Your task to perform on an android device: Is it going to rain tomorrow? Image 0: 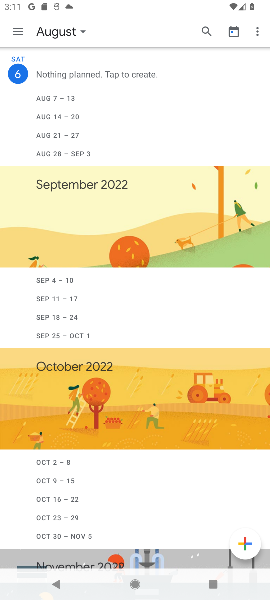
Step 0: press back button
Your task to perform on an android device: Is it going to rain tomorrow? Image 1: 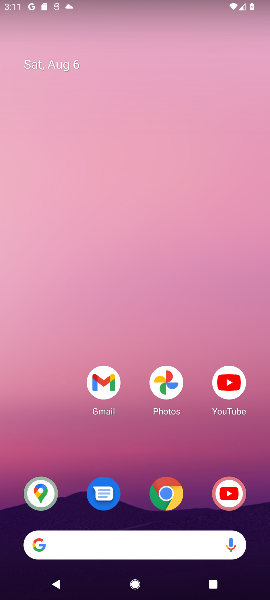
Step 1: drag from (157, 341) to (89, 124)
Your task to perform on an android device: Is it going to rain tomorrow? Image 2: 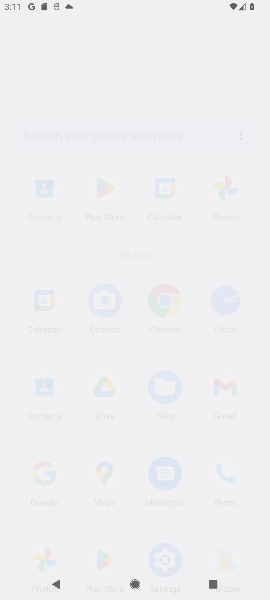
Step 2: drag from (114, 410) to (114, 122)
Your task to perform on an android device: Is it going to rain tomorrow? Image 3: 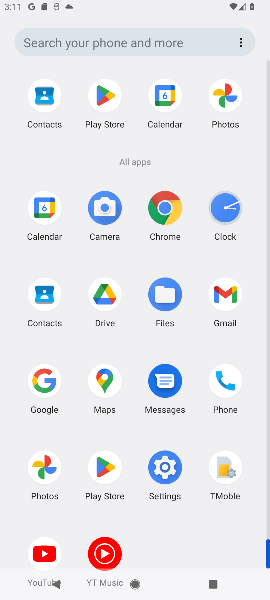
Step 3: click (168, 208)
Your task to perform on an android device: Is it going to rain tomorrow? Image 4: 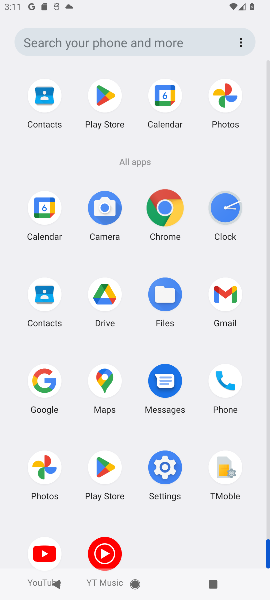
Step 4: click (167, 211)
Your task to perform on an android device: Is it going to rain tomorrow? Image 5: 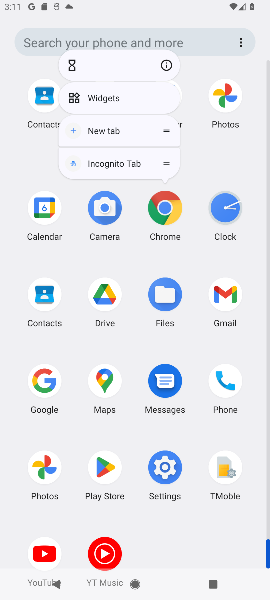
Step 5: click (168, 211)
Your task to perform on an android device: Is it going to rain tomorrow? Image 6: 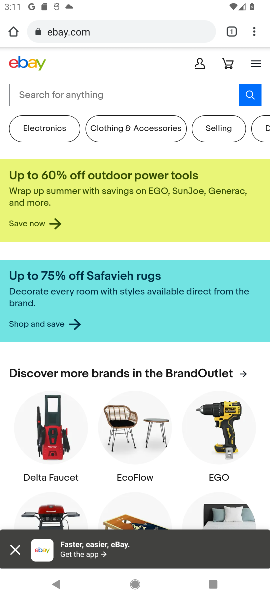
Step 6: click (256, 33)
Your task to perform on an android device: Is it going to rain tomorrow? Image 7: 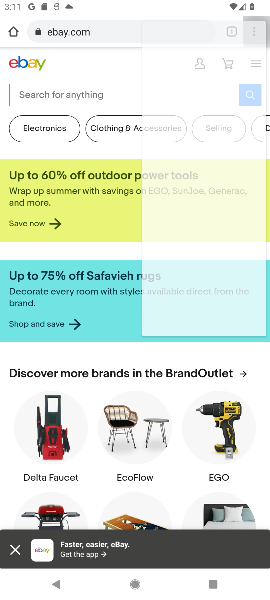
Step 7: click (257, 33)
Your task to perform on an android device: Is it going to rain tomorrow? Image 8: 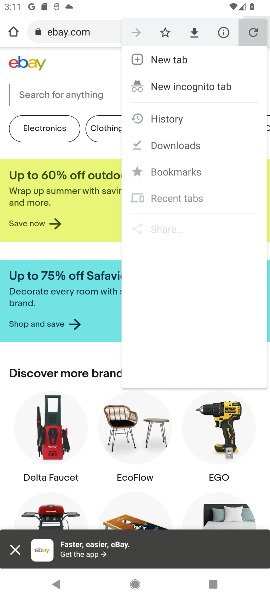
Step 8: click (257, 33)
Your task to perform on an android device: Is it going to rain tomorrow? Image 9: 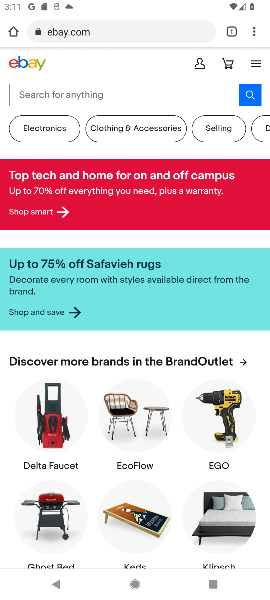
Step 9: click (254, 30)
Your task to perform on an android device: Is it going to rain tomorrow? Image 10: 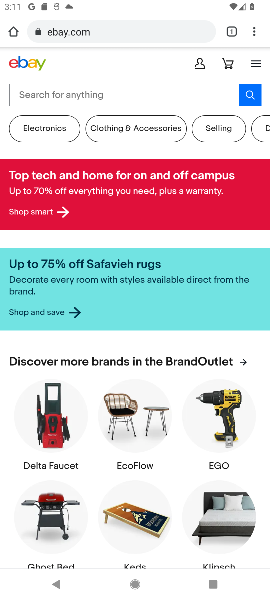
Step 10: click (251, 35)
Your task to perform on an android device: Is it going to rain tomorrow? Image 11: 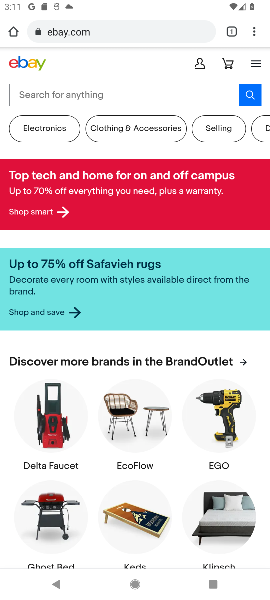
Step 11: click (251, 35)
Your task to perform on an android device: Is it going to rain tomorrow? Image 12: 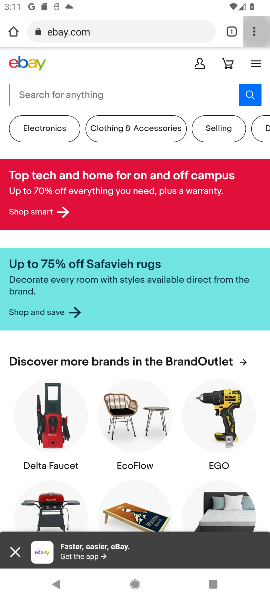
Step 12: click (251, 35)
Your task to perform on an android device: Is it going to rain tomorrow? Image 13: 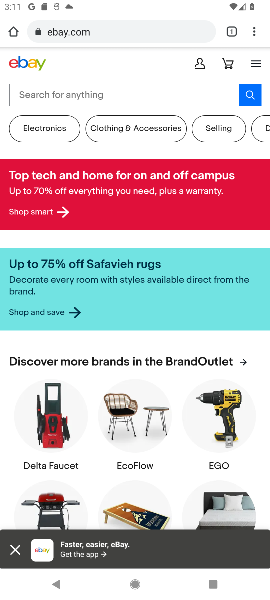
Step 13: click (245, 28)
Your task to perform on an android device: Is it going to rain tomorrow? Image 14: 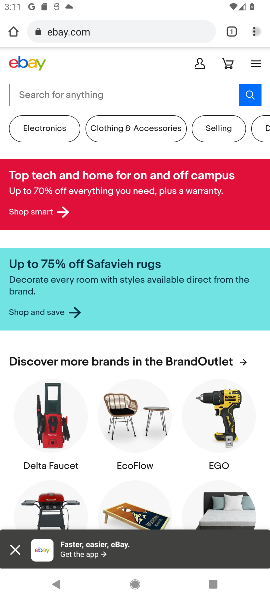
Step 14: drag from (248, 32) to (141, 122)
Your task to perform on an android device: Is it going to rain tomorrow? Image 15: 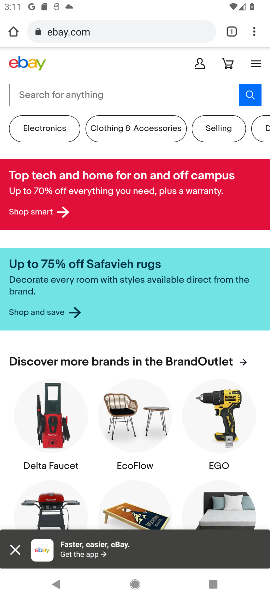
Step 15: click (252, 28)
Your task to perform on an android device: Is it going to rain tomorrow? Image 16: 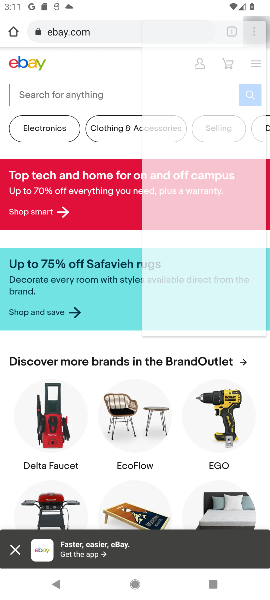
Step 16: click (255, 32)
Your task to perform on an android device: Is it going to rain tomorrow? Image 17: 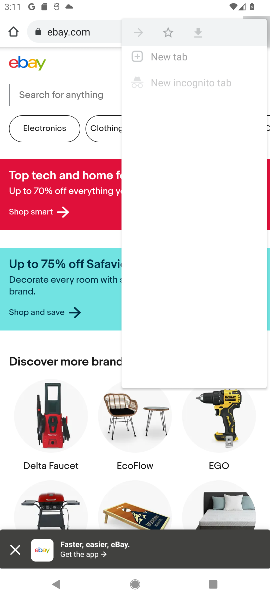
Step 17: click (255, 32)
Your task to perform on an android device: Is it going to rain tomorrow? Image 18: 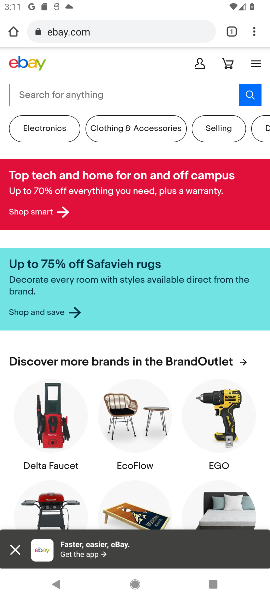
Step 18: drag from (179, 63) to (122, 68)
Your task to perform on an android device: Is it going to rain tomorrow? Image 19: 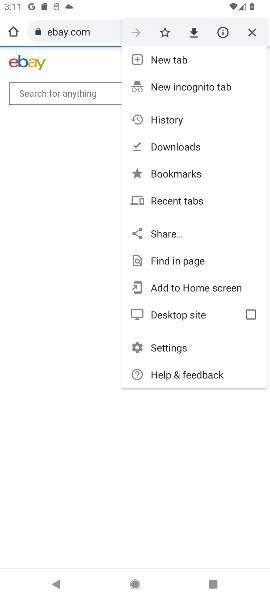
Step 19: click (155, 59)
Your task to perform on an android device: Is it going to rain tomorrow? Image 20: 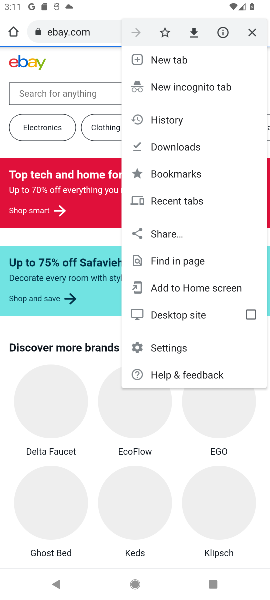
Step 20: click (157, 60)
Your task to perform on an android device: Is it going to rain tomorrow? Image 21: 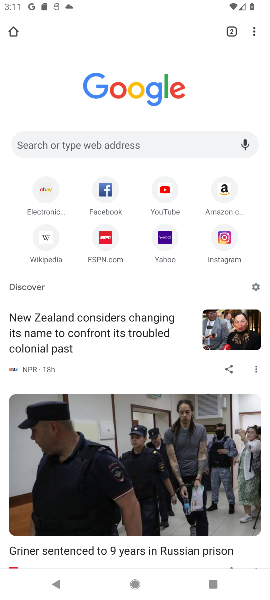
Step 21: drag from (252, 31) to (156, 59)
Your task to perform on an android device: Is it going to rain tomorrow? Image 22: 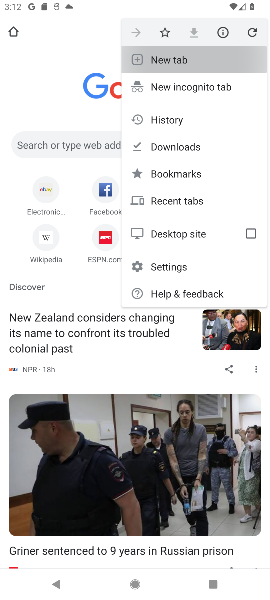
Step 22: click (157, 59)
Your task to perform on an android device: Is it going to rain tomorrow? Image 23: 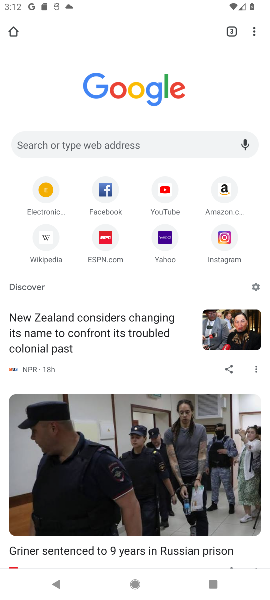
Step 23: click (59, 141)
Your task to perform on an android device: Is it going to rain tomorrow? Image 24: 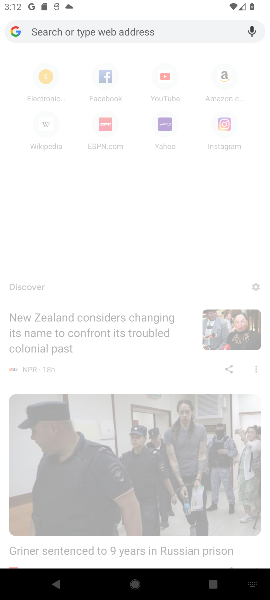
Step 24: type "is it going to rain tomorrow"
Your task to perform on an android device: Is it going to rain tomorrow? Image 25: 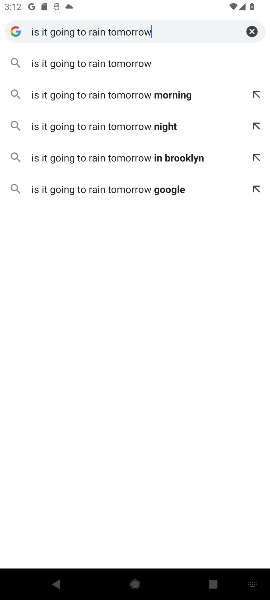
Step 25: click (107, 66)
Your task to perform on an android device: Is it going to rain tomorrow? Image 26: 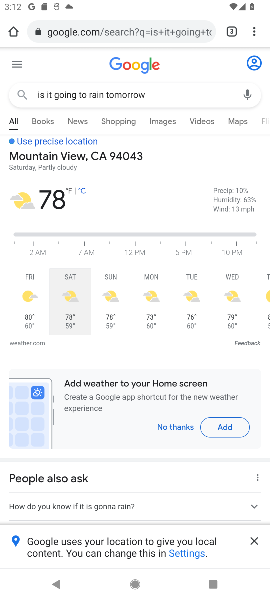
Step 26: task complete